Your task to perform on an android device: Open Google Chrome and open the bookmarks view Image 0: 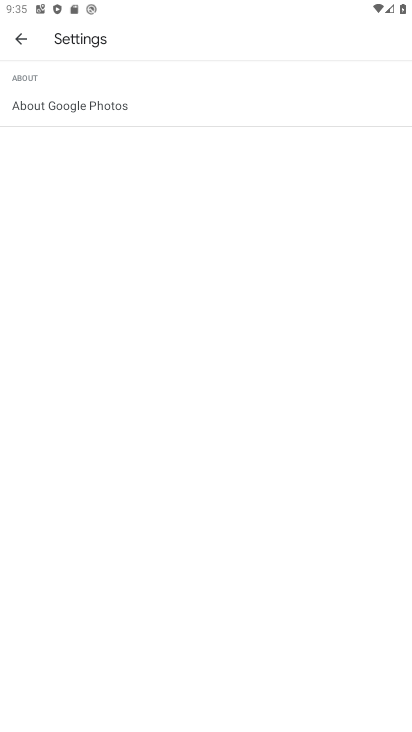
Step 0: click (24, 33)
Your task to perform on an android device: Open Google Chrome and open the bookmarks view Image 1: 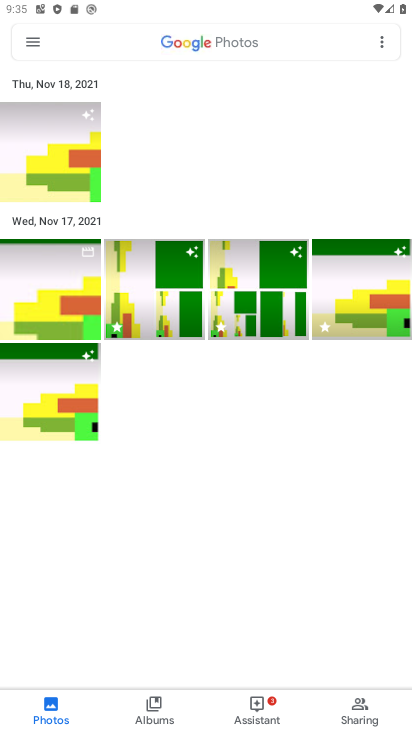
Step 1: press home button
Your task to perform on an android device: Open Google Chrome and open the bookmarks view Image 2: 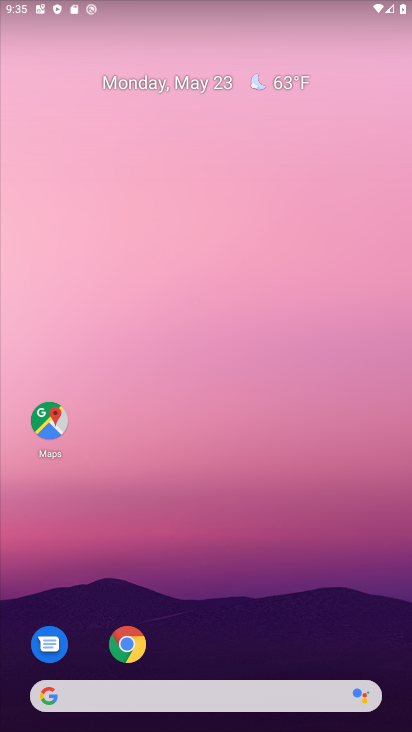
Step 2: drag from (241, 640) to (231, 0)
Your task to perform on an android device: Open Google Chrome and open the bookmarks view Image 3: 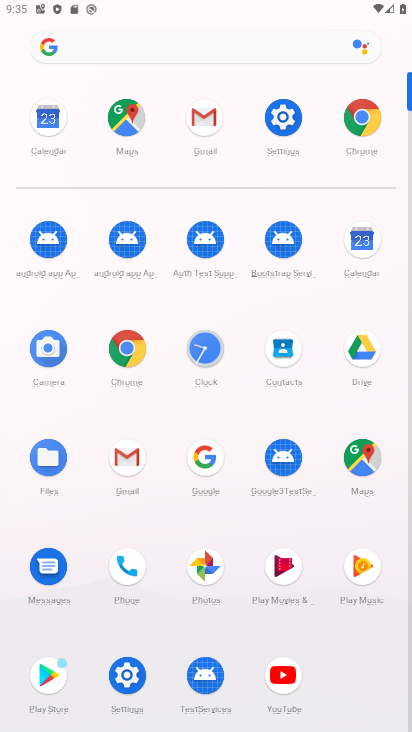
Step 3: click (122, 342)
Your task to perform on an android device: Open Google Chrome and open the bookmarks view Image 4: 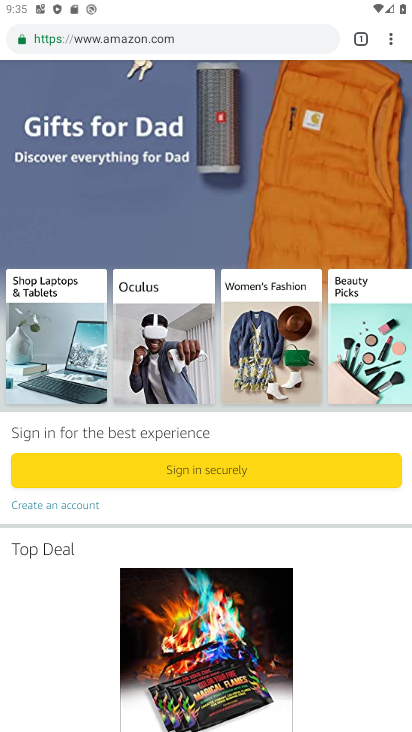
Step 4: click (384, 36)
Your task to perform on an android device: Open Google Chrome and open the bookmarks view Image 5: 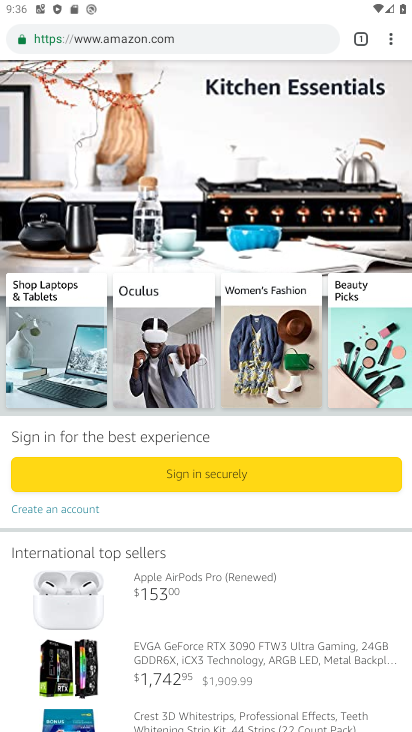
Step 5: click (390, 36)
Your task to perform on an android device: Open Google Chrome and open the bookmarks view Image 6: 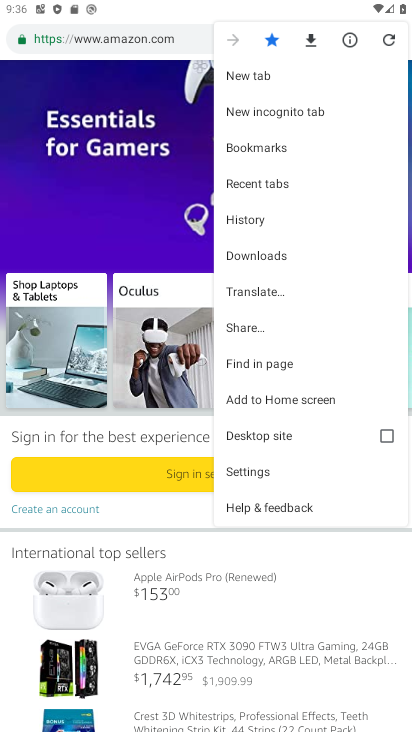
Step 6: click (290, 142)
Your task to perform on an android device: Open Google Chrome and open the bookmarks view Image 7: 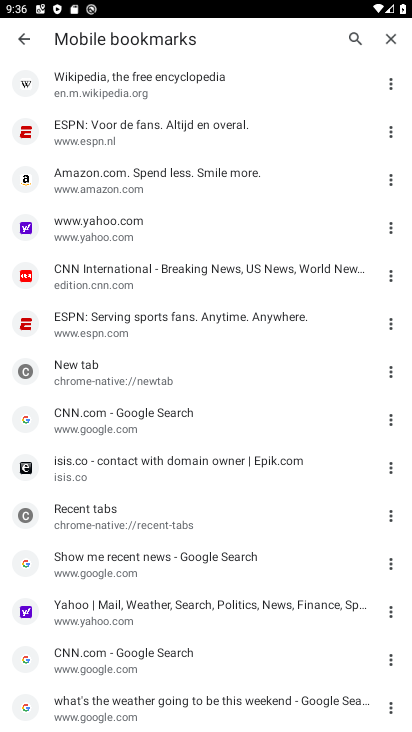
Step 7: task complete